Your task to perform on an android device: turn on airplane mode Image 0: 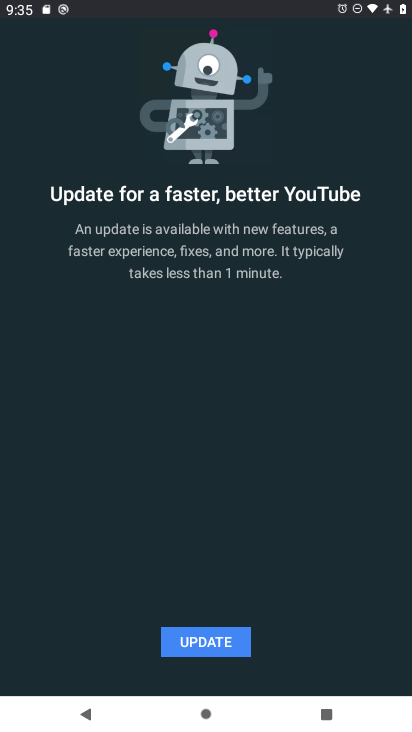
Step 0: press home button
Your task to perform on an android device: turn on airplane mode Image 1: 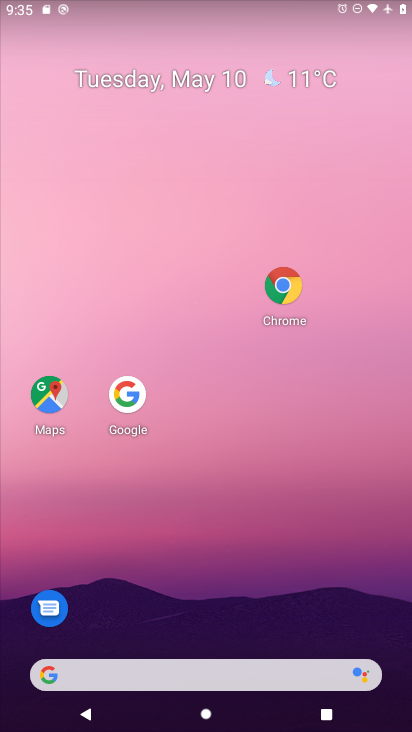
Step 1: drag from (131, 680) to (313, 123)
Your task to perform on an android device: turn on airplane mode Image 2: 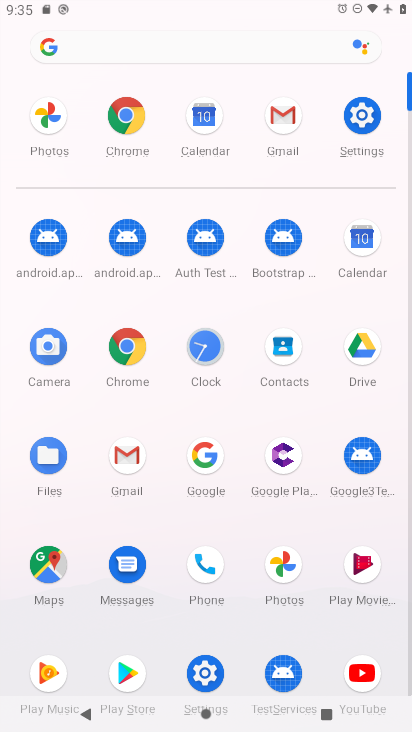
Step 2: click (350, 121)
Your task to perform on an android device: turn on airplane mode Image 3: 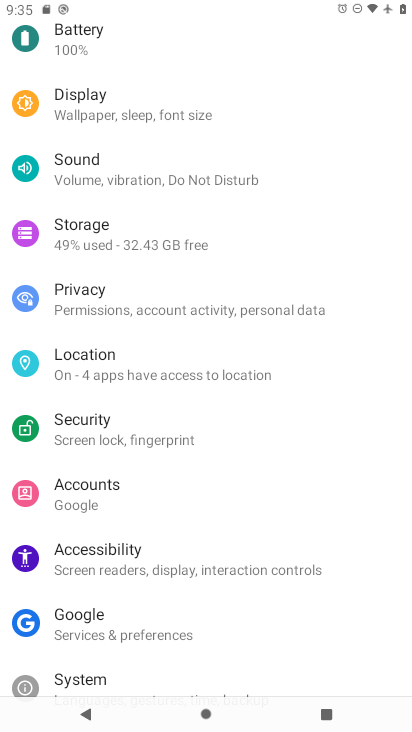
Step 3: drag from (248, 59) to (112, 508)
Your task to perform on an android device: turn on airplane mode Image 4: 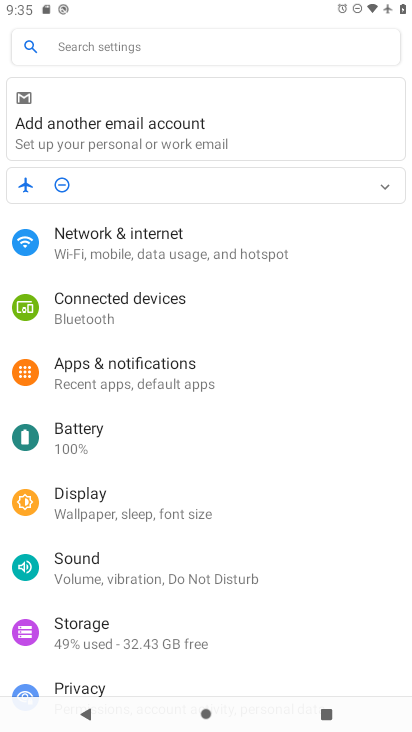
Step 4: click (150, 238)
Your task to perform on an android device: turn on airplane mode Image 5: 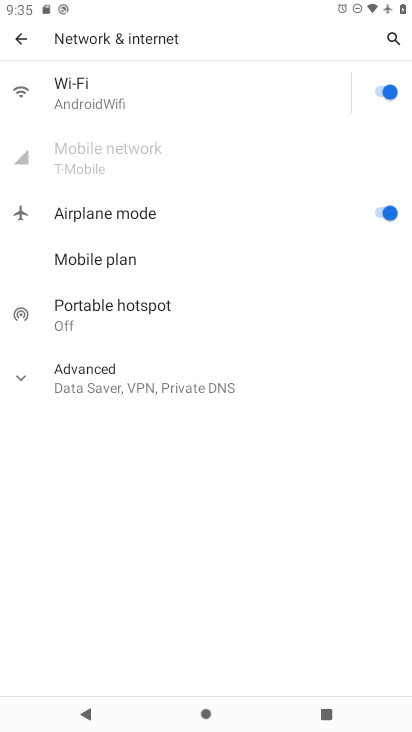
Step 5: task complete